Your task to perform on an android device: Turn off the flashlight Image 0: 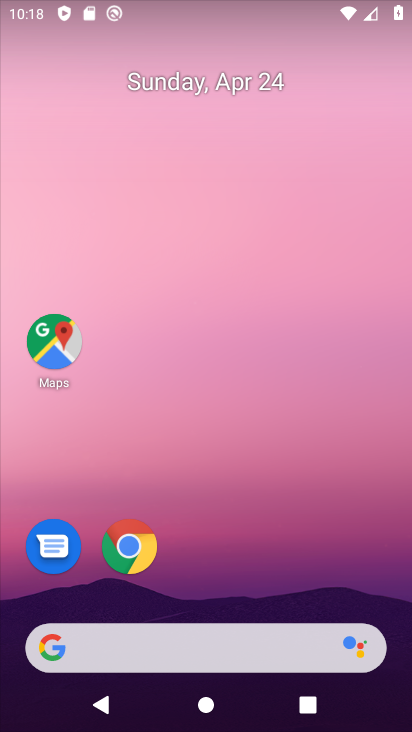
Step 0: drag from (289, 0) to (351, 442)
Your task to perform on an android device: Turn off the flashlight Image 1: 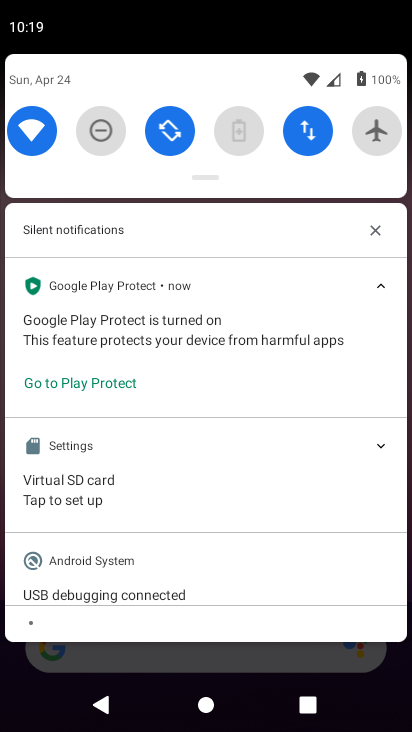
Step 1: task complete